Your task to perform on an android device: check the backup settings in the google photos Image 0: 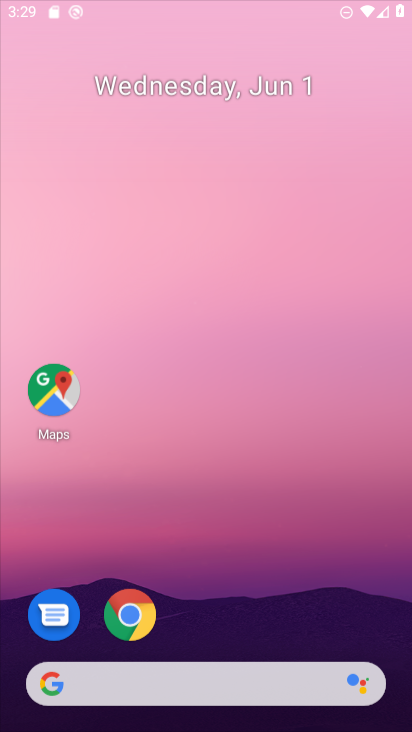
Step 0: press home button
Your task to perform on an android device: check the backup settings in the google photos Image 1: 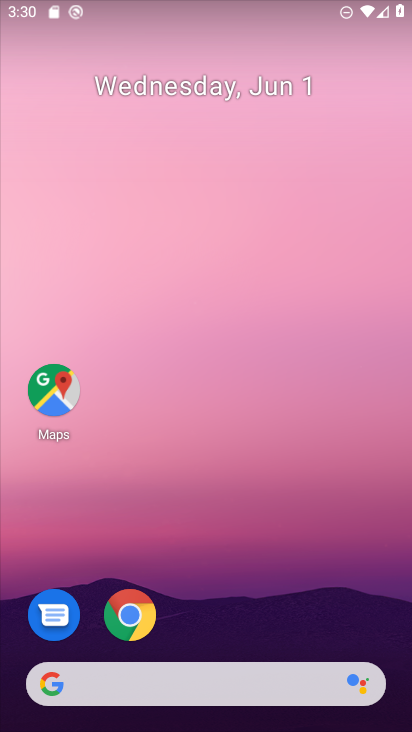
Step 1: drag from (220, 638) to (256, 55)
Your task to perform on an android device: check the backup settings in the google photos Image 2: 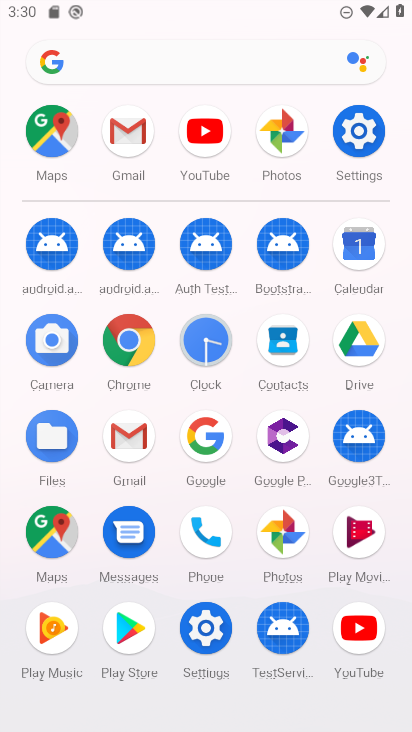
Step 2: click (282, 126)
Your task to perform on an android device: check the backup settings in the google photos Image 3: 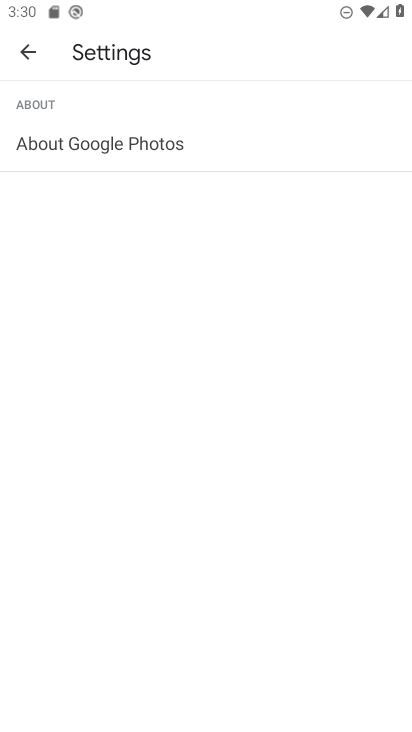
Step 3: click (36, 52)
Your task to perform on an android device: check the backup settings in the google photos Image 4: 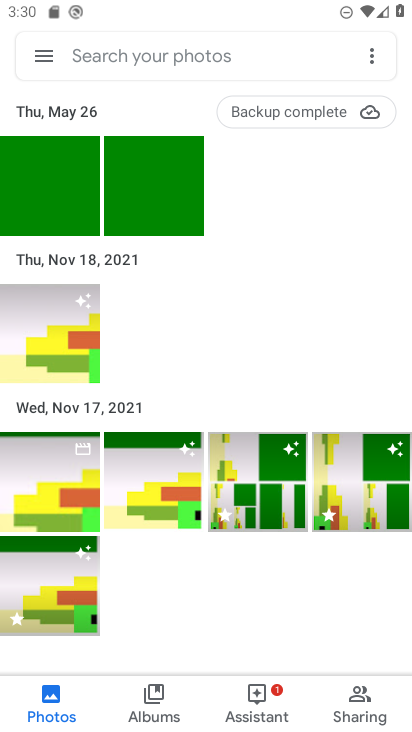
Step 4: click (45, 57)
Your task to perform on an android device: check the backup settings in the google photos Image 5: 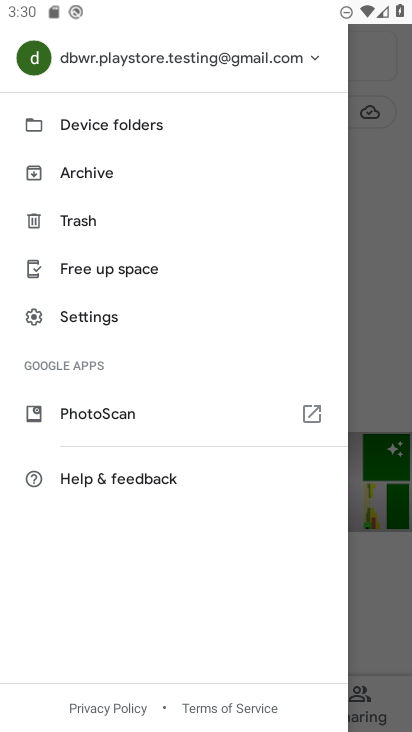
Step 5: click (118, 314)
Your task to perform on an android device: check the backup settings in the google photos Image 6: 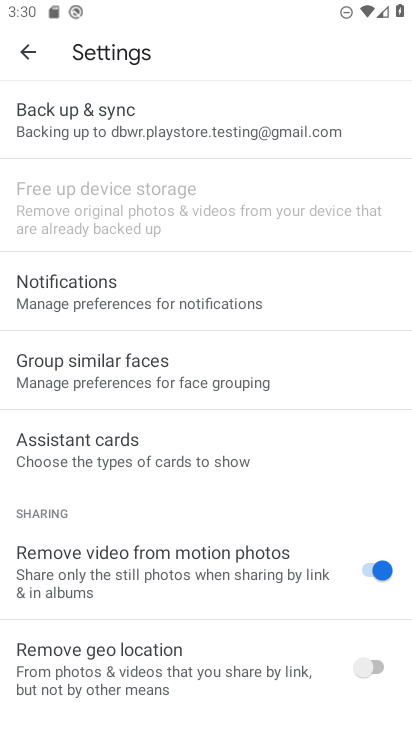
Step 6: click (154, 113)
Your task to perform on an android device: check the backup settings in the google photos Image 7: 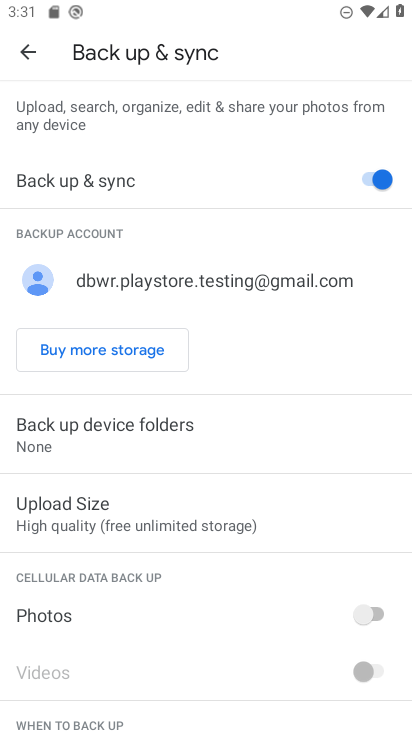
Step 7: task complete